Your task to perform on an android device: Search for seafood restaurants on Google Maps Image 0: 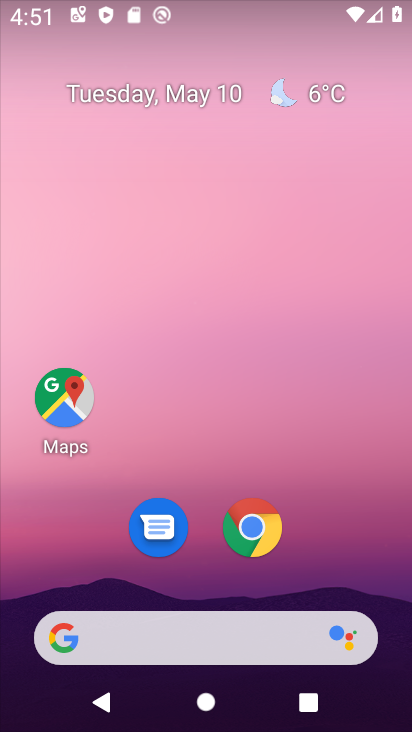
Step 0: drag from (323, 577) to (244, 70)
Your task to perform on an android device: Search for seafood restaurants on Google Maps Image 1: 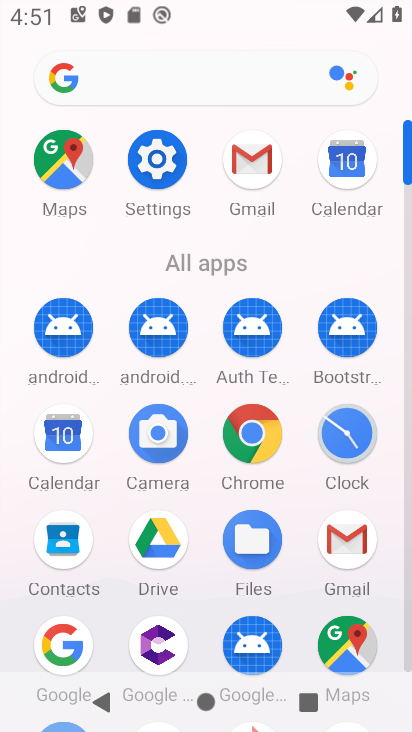
Step 1: click (54, 160)
Your task to perform on an android device: Search for seafood restaurants on Google Maps Image 2: 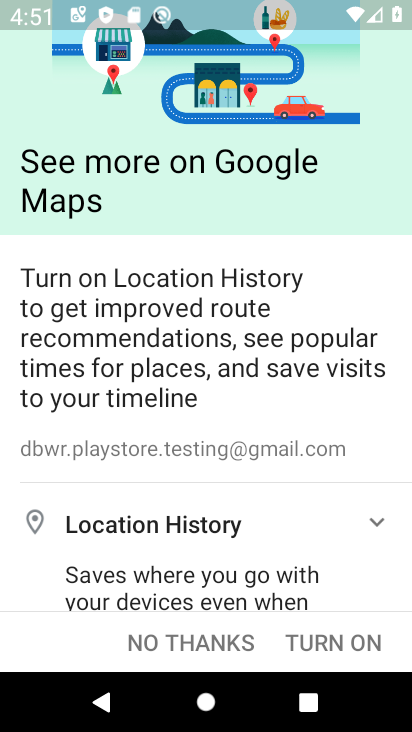
Step 2: click (232, 636)
Your task to perform on an android device: Search for seafood restaurants on Google Maps Image 3: 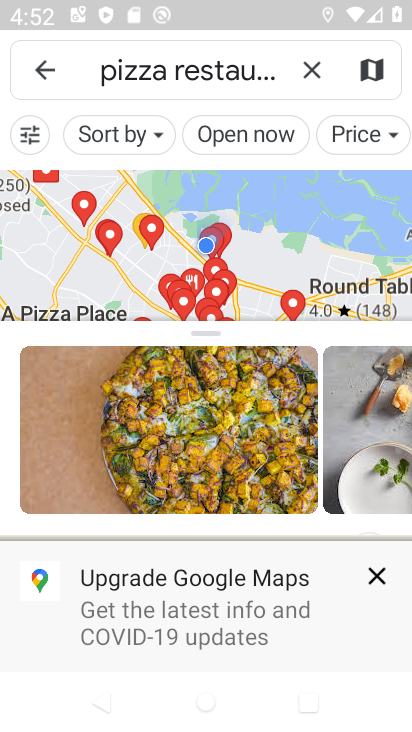
Step 3: click (302, 67)
Your task to perform on an android device: Search for seafood restaurants on Google Maps Image 4: 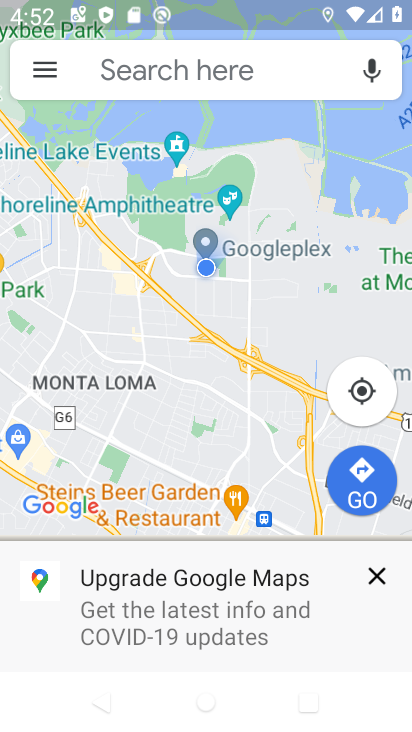
Step 4: click (207, 79)
Your task to perform on an android device: Search for seafood restaurants on Google Maps Image 5: 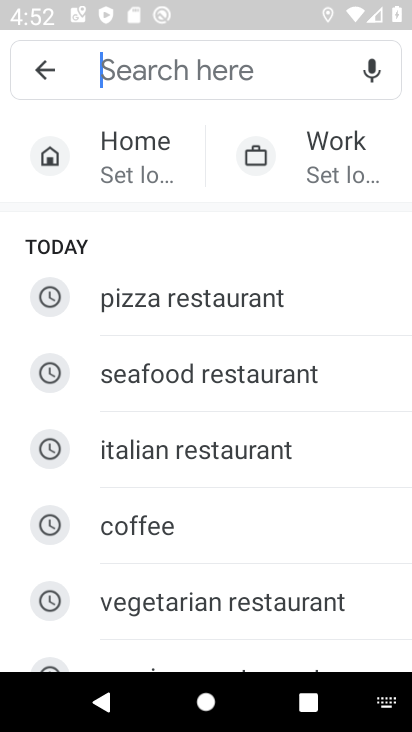
Step 5: type "seafood restaurants"
Your task to perform on an android device: Search for seafood restaurants on Google Maps Image 6: 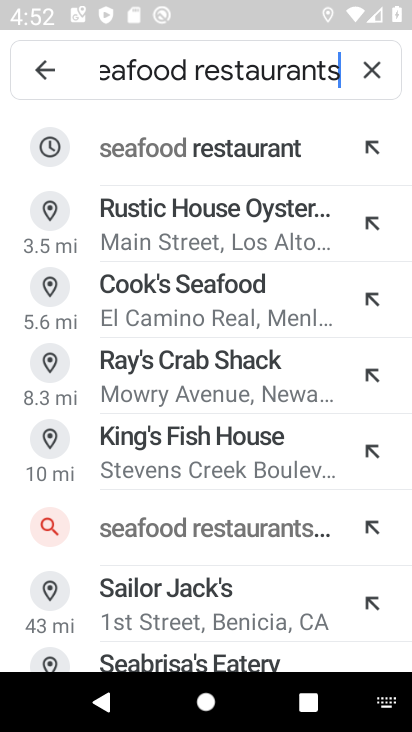
Step 6: click (240, 146)
Your task to perform on an android device: Search for seafood restaurants on Google Maps Image 7: 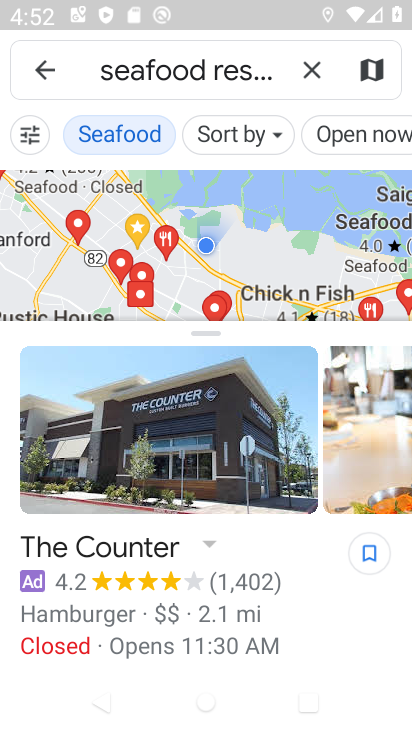
Step 7: task complete